Your task to perform on an android device: Clear the shopping cart on ebay.com. Search for "dell xps" on ebay.com, select the first entry, add it to the cart, then select checkout. Image 0: 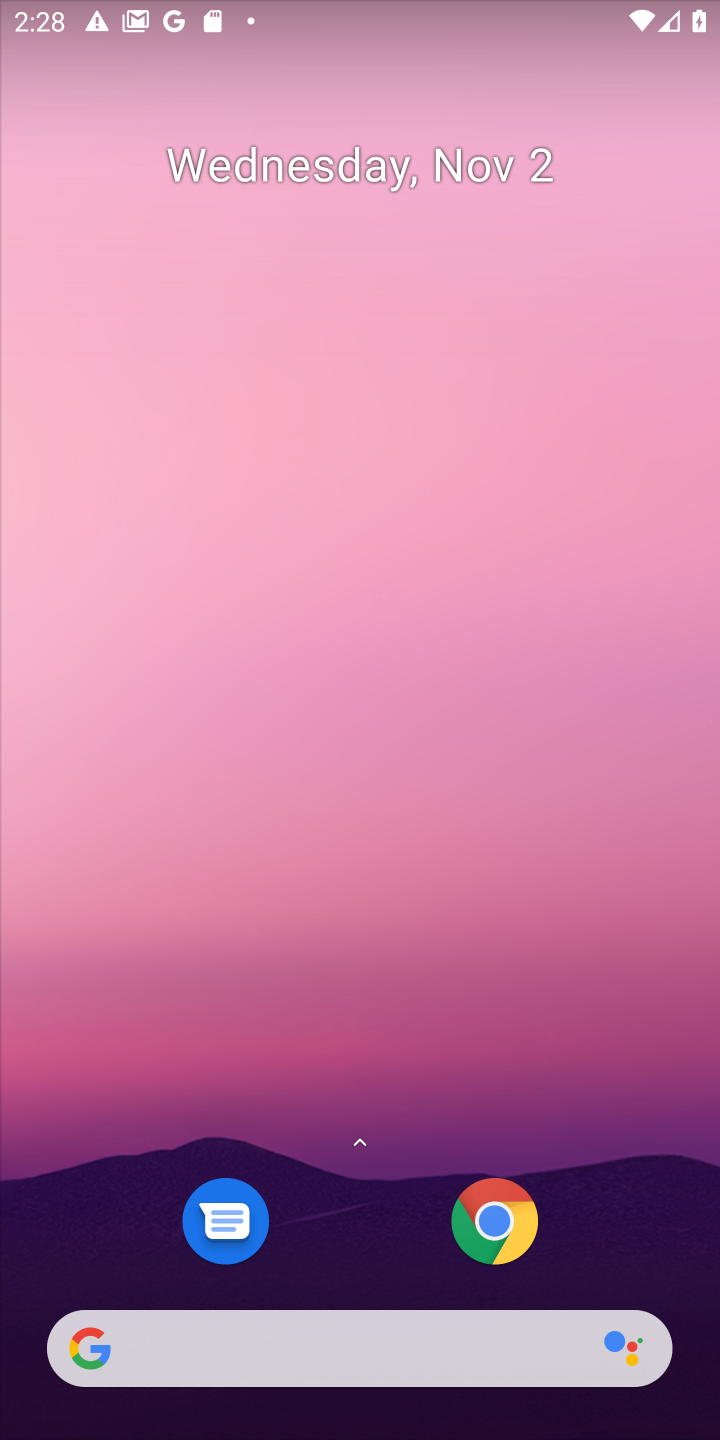
Step 0: click (290, 1343)
Your task to perform on an android device: Clear the shopping cart on ebay.com. Search for "dell xps" on ebay.com, select the first entry, add it to the cart, then select checkout. Image 1: 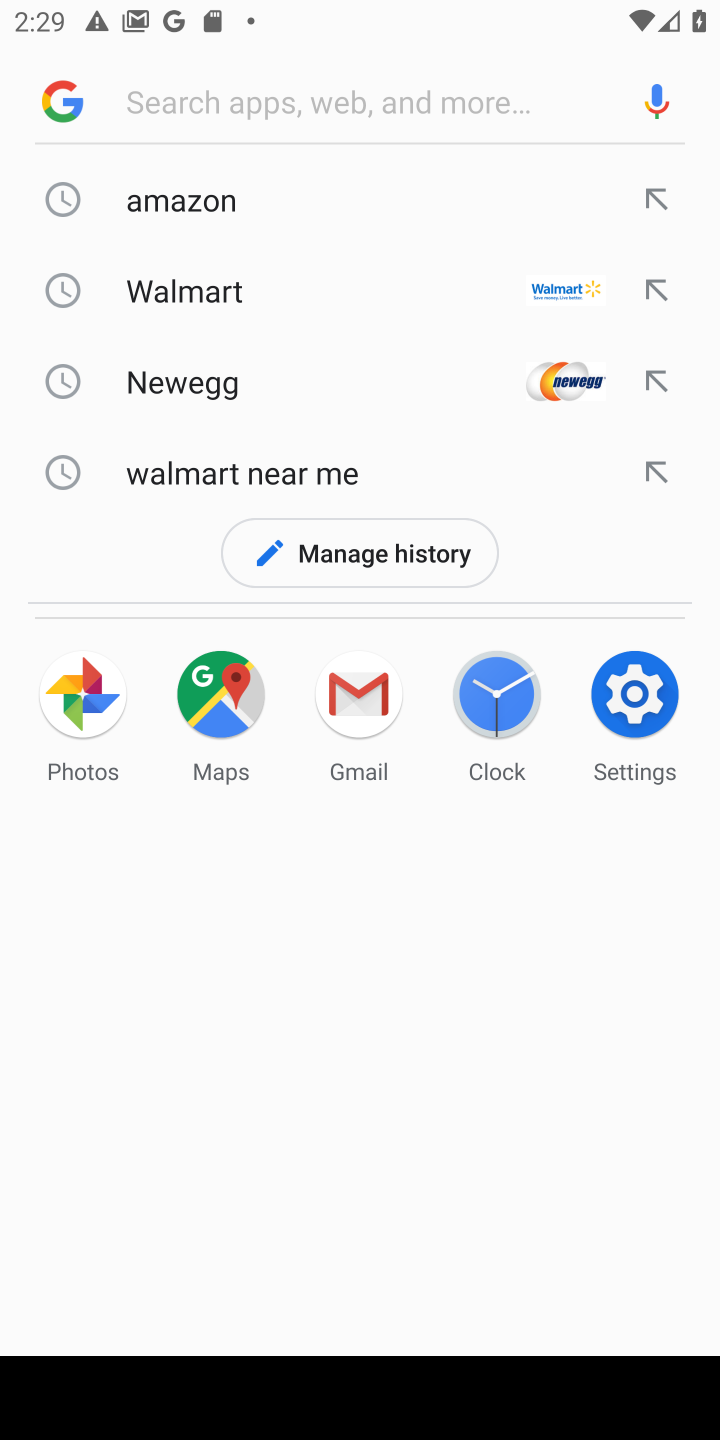
Step 1: click (203, 263)
Your task to perform on an android device: Clear the shopping cart on ebay.com. Search for "dell xps" on ebay.com, select the first entry, add it to the cart, then select checkout. Image 2: 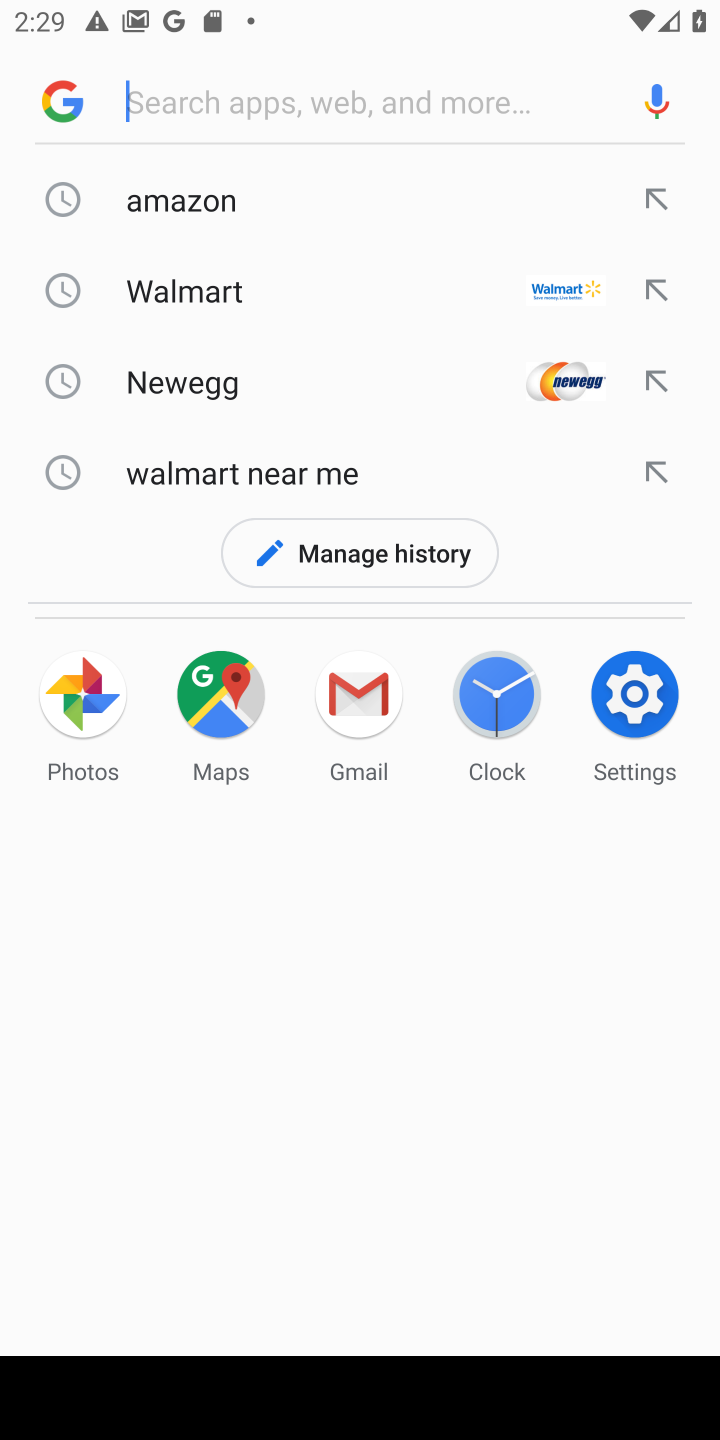
Step 2: click (203, 263)
Your task to perform on an android device: Clear the shopping cart on ebay.com. Search for "dell xps" on ebay.com, select the first entry, add it to the cart, then select checkout. Image 3: 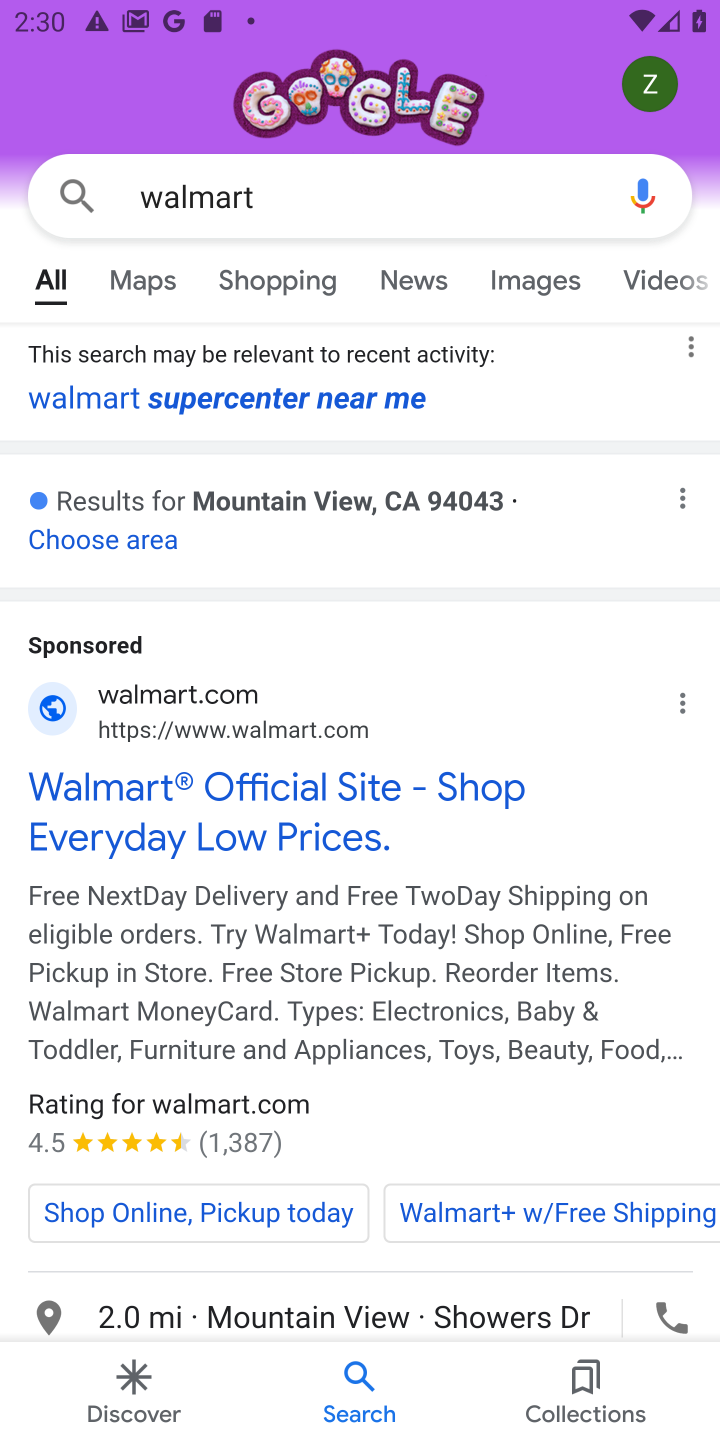
Step 3: task complete